Your task to perform on an android device: Open internet settings Image 0: 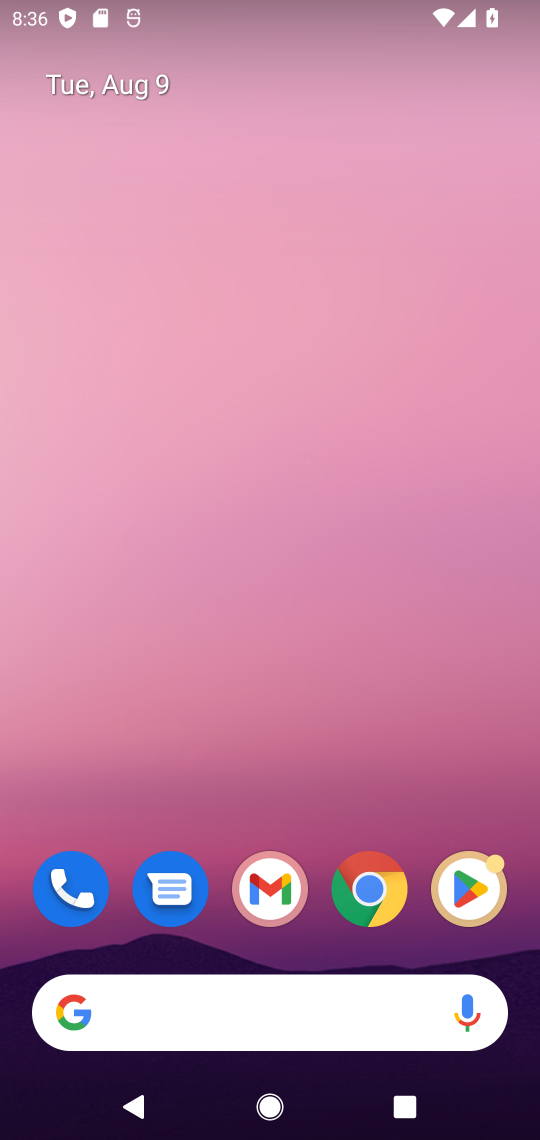
Step 0: drag from (269, 889) to (272, 88)
Your task to perform on an android device: Open internet settings Image 1: 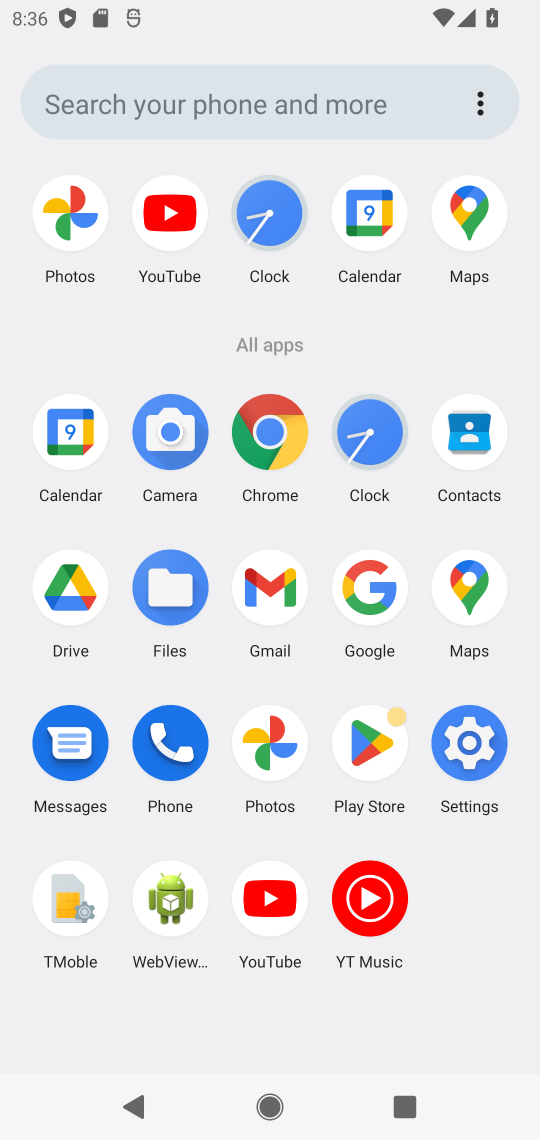
Step 1: click (484, 745)
Your task to perform on an android device: Open internet settings Image 2: 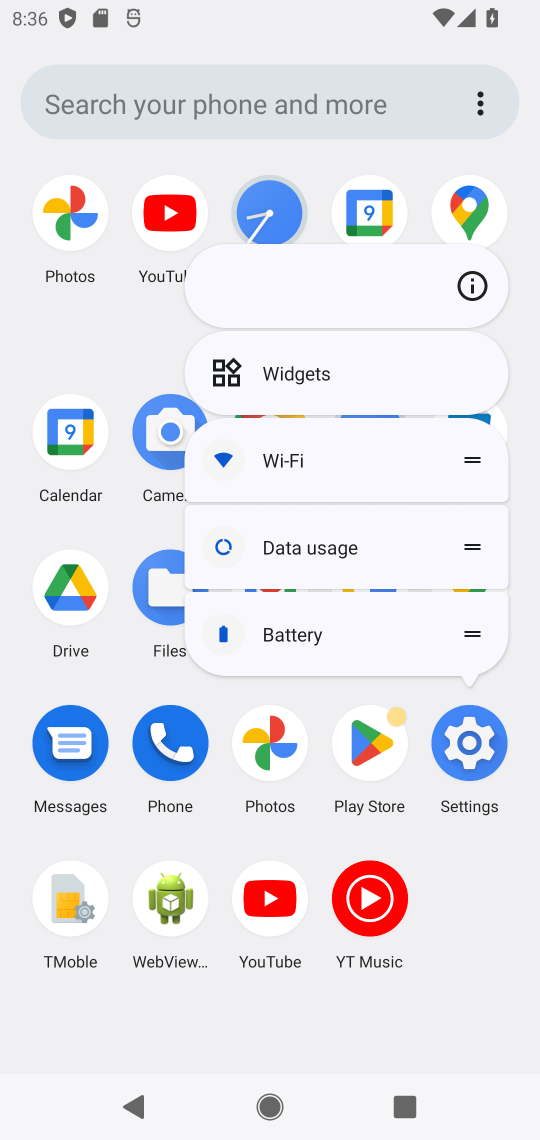
Step 2: click (469, 750)
Your task to perform on an android device: Open internet settings Image 3: 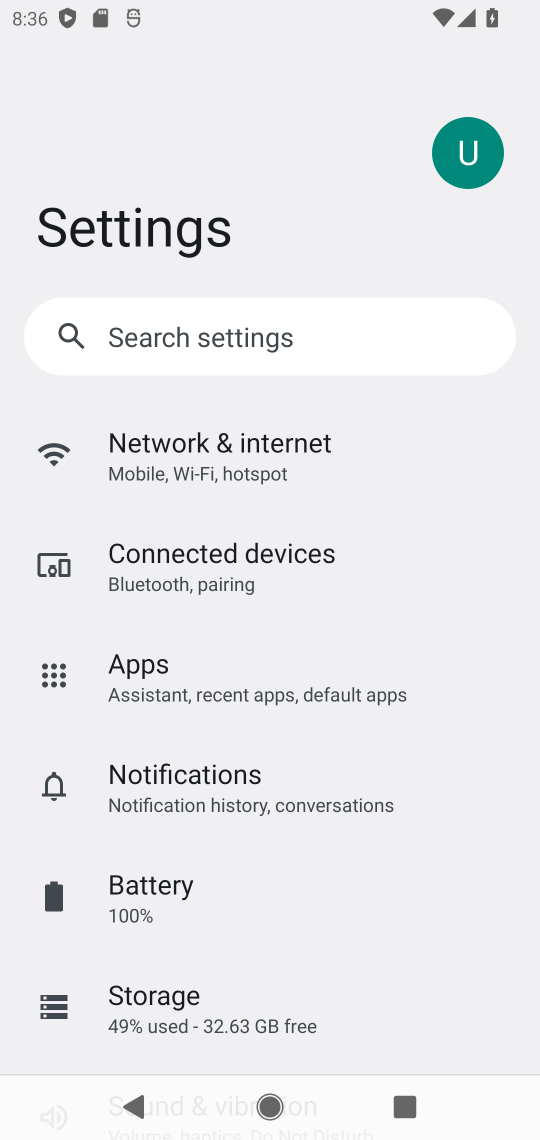
Step 3: click (254, 443)
Your task to perform on an android device: Open internet settings Image 4: 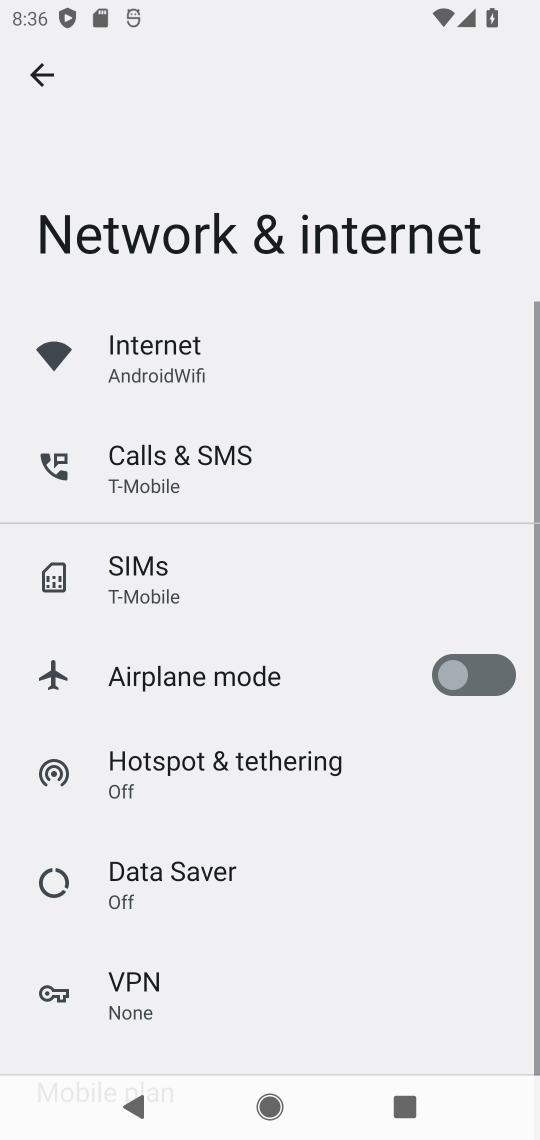
Step 4: click (152, 353)
Your task to perform on an android device: Open internet settings Image 5: 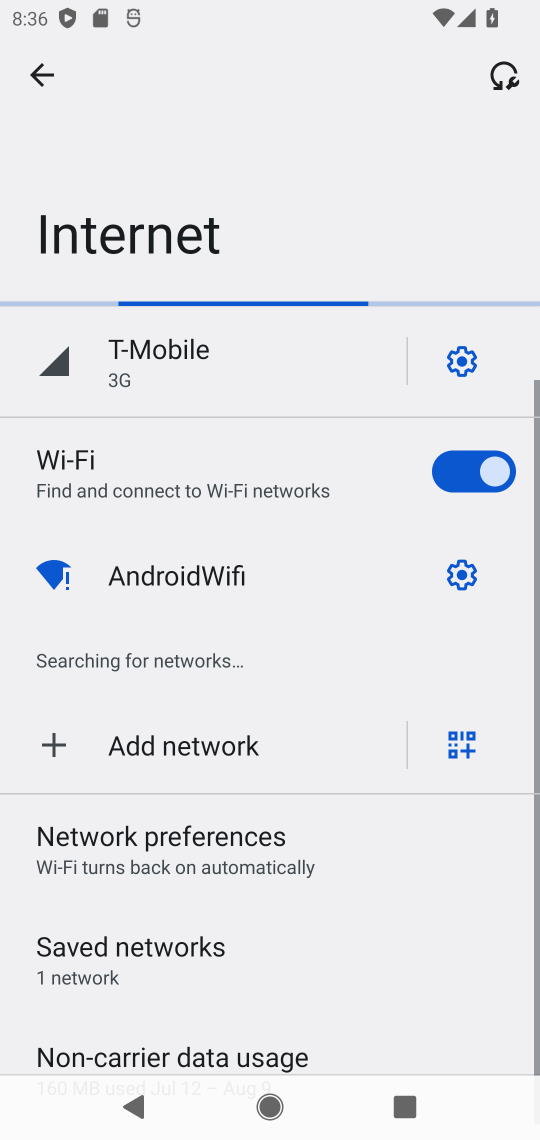
Step 5: task complete